Your task to perform on an android device: open a new tab in the chrome app Image 0: 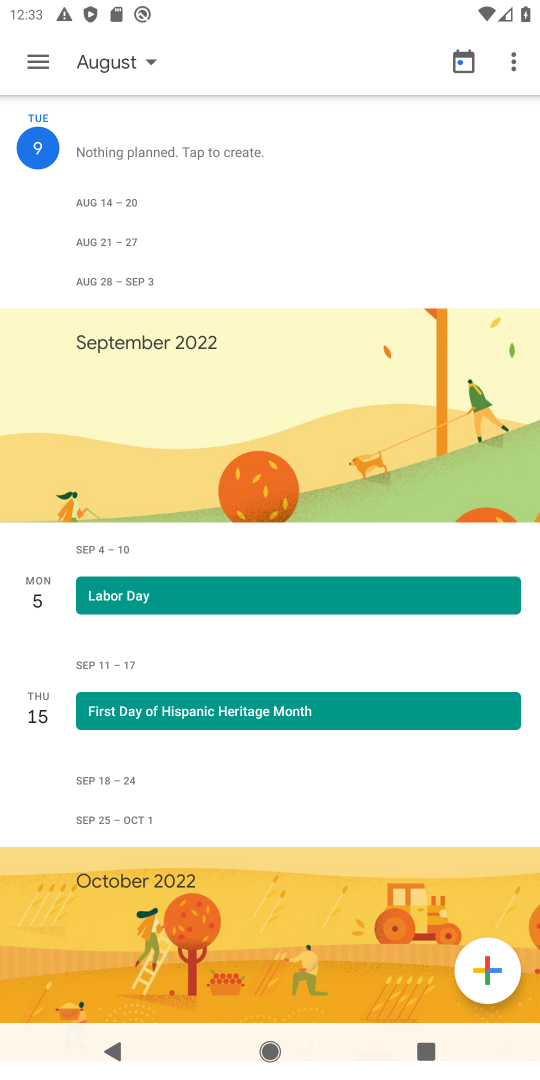
Step 0: press home button
Your task to perform on an android device: open a new tab in the chrome app Image 1: 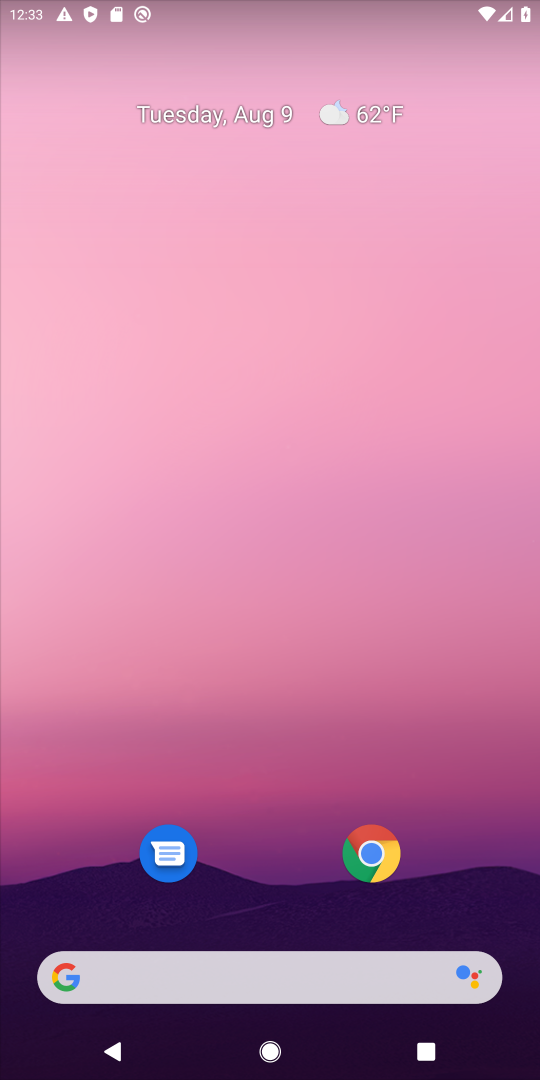
Step 1: click (363, 863)
Your task to perform on an android device: open a new tab in the chrome app Image 2: 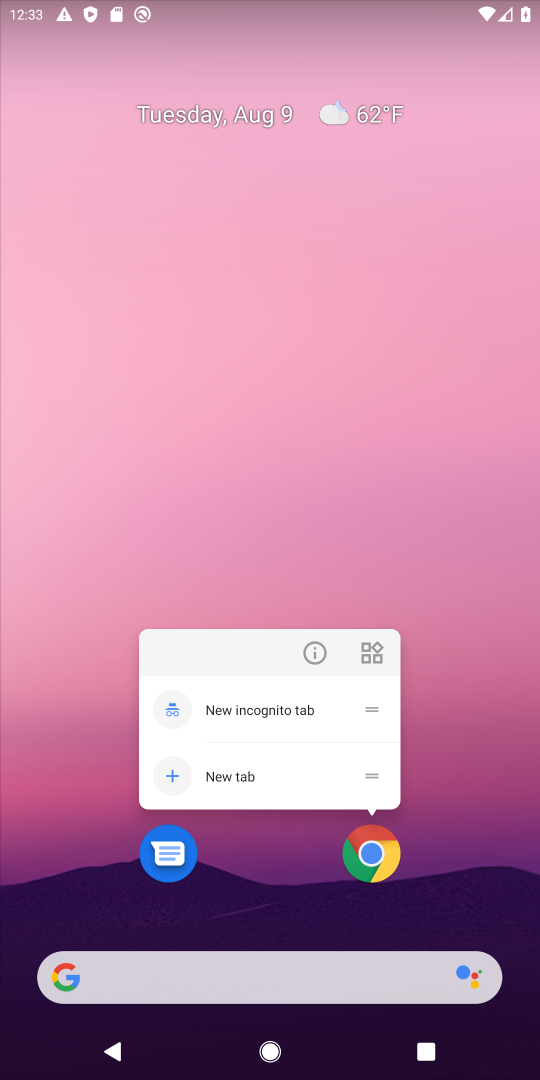
Step 2: click (372, 871)
Your task to perform on an android device: open a new tab in the chrome app Image 3: 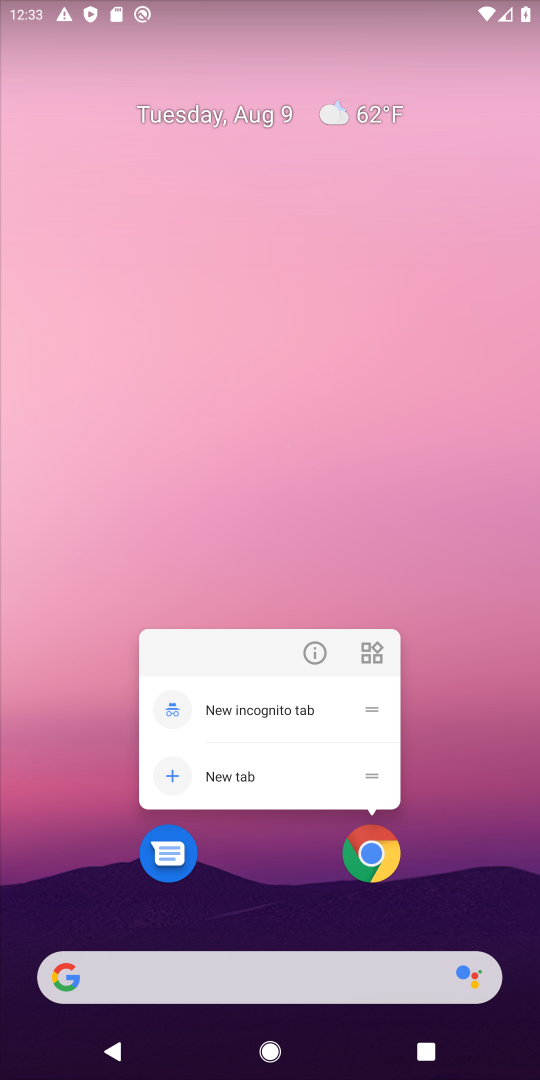
Step 3: click (363, 856)
Your task to perform on an android device: open a new tab in the chrome app Image 4: 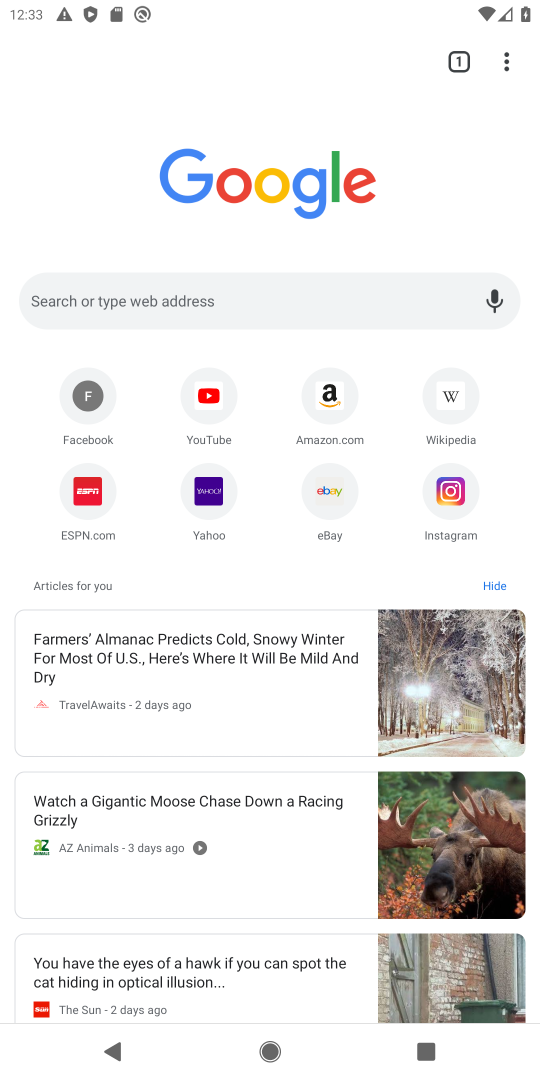
Step 4: click (452, 59)
Your task to perform on an android device: open a new tab in the chrome app Image 5: 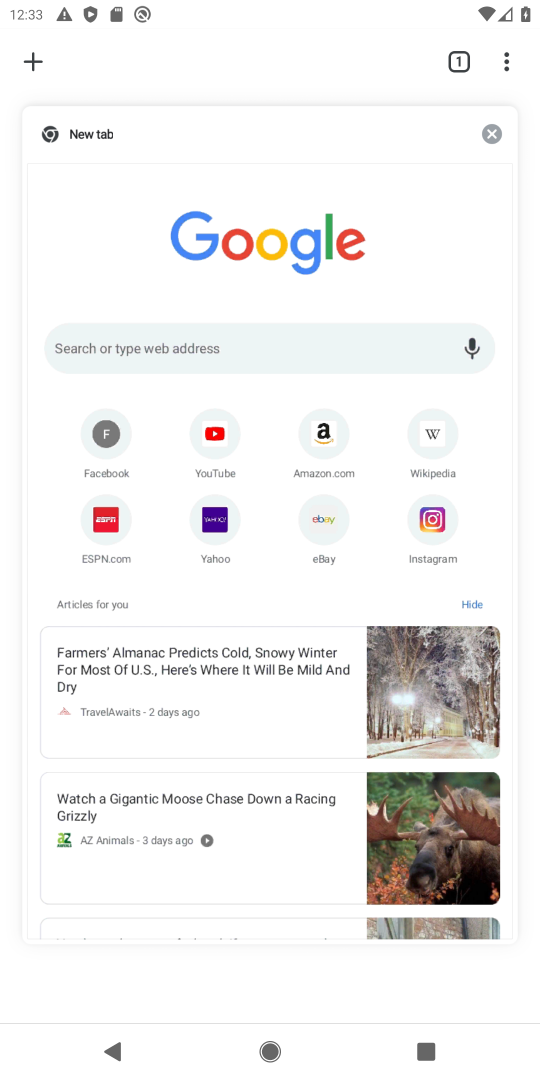
Step 5: click (27, 57)
Your task to perform on an android device: open a new tab in the chrome app Image 6: 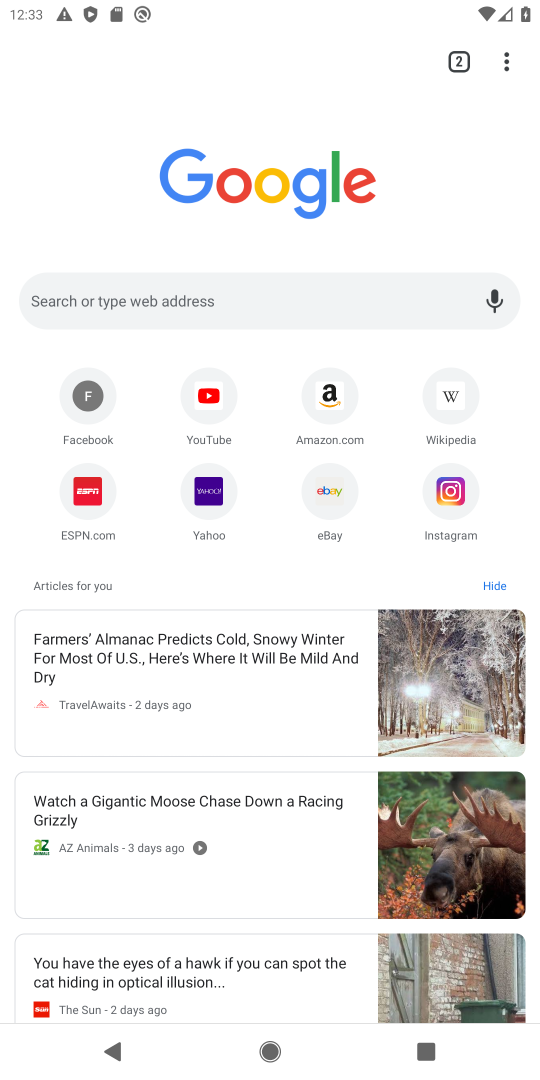
Step 6: task complete